Your task to perform on an android device: check storage Image 0: 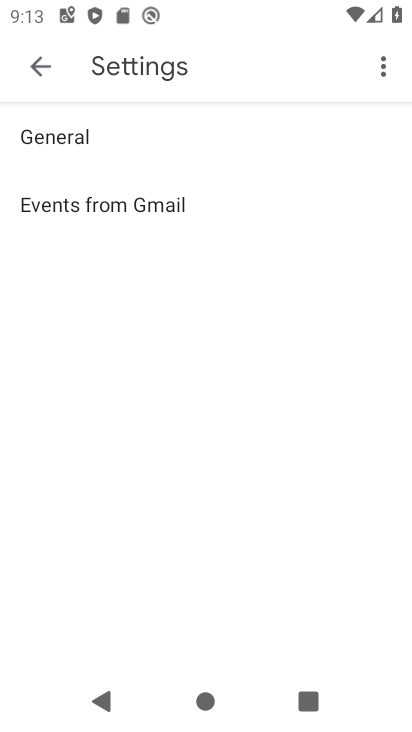
Step 0: press home button
Your task to perform on an android device: check storage Image 1: 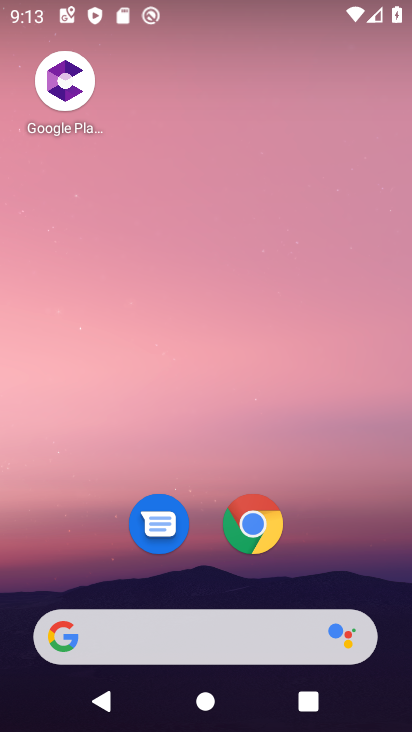
Step 1: drag from (157, 627) to (282, 71)
Your task to perform on an android device: check storage Image 2: 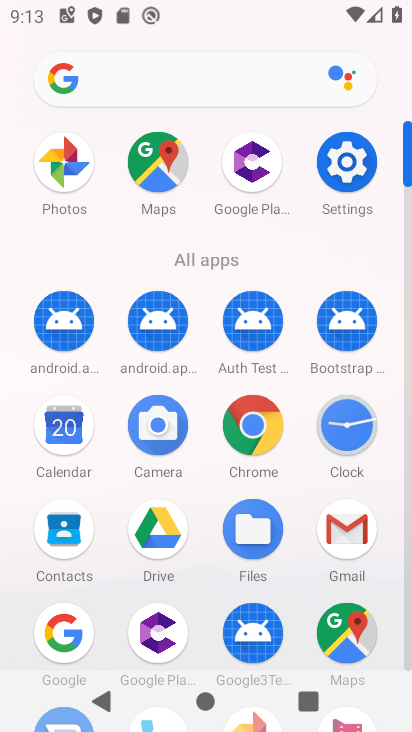
Step 2: click (341, 151)
Your task to perform on an android device: check storage Image 3: 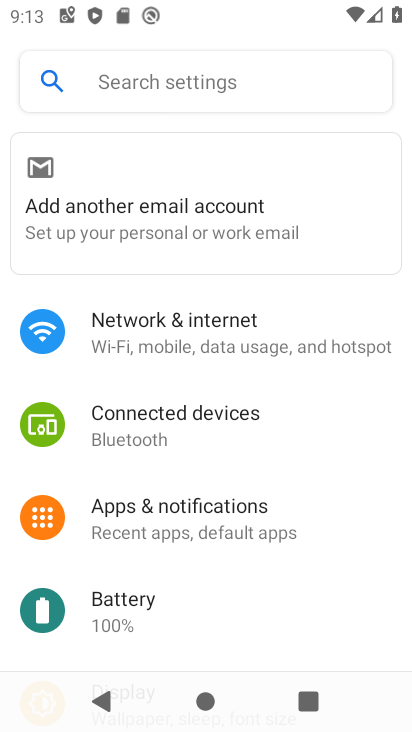
Step 3: drag from (236, 606) to (331, 148)
Your task to perform on an android device: check storage Image 4: 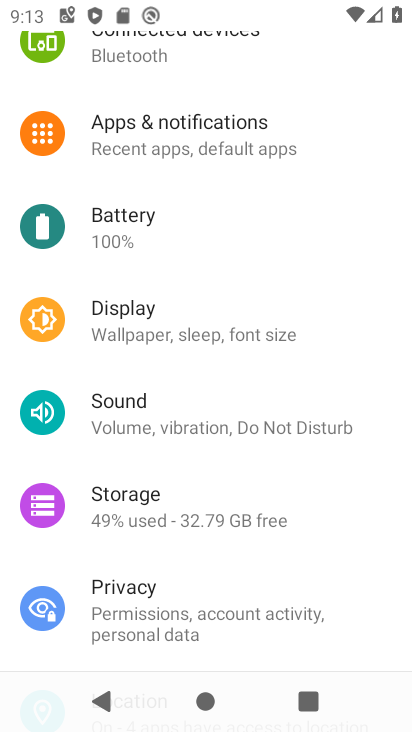
Step 4: click (156, 500)
Your task to perform on an android device: check storage Image 5: 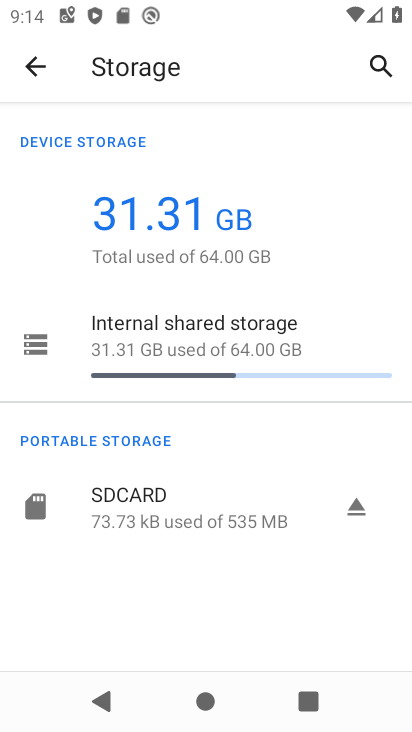
Step 5: task complete